Your task to perform on an android device: toggle notification dots Image 0: 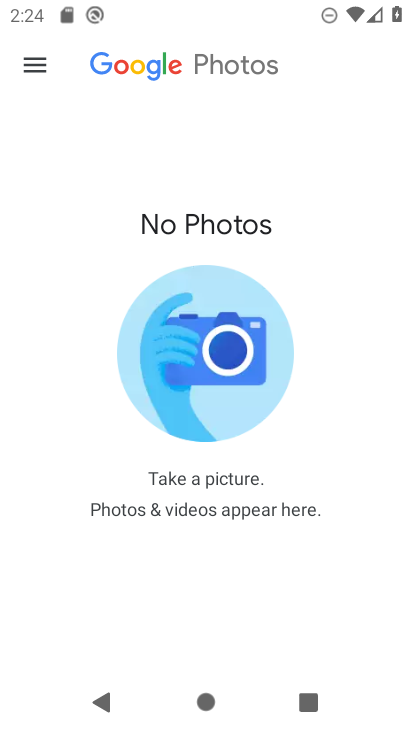
Step 0: press back button
Your task to perform on an android device: toggle notification dots Image 1: 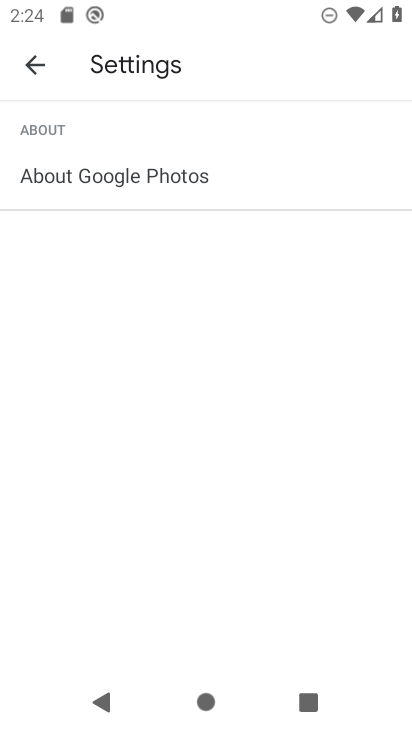
Step 1: press home button
Your task to perform on an android device: toggle notification dots Image 2: 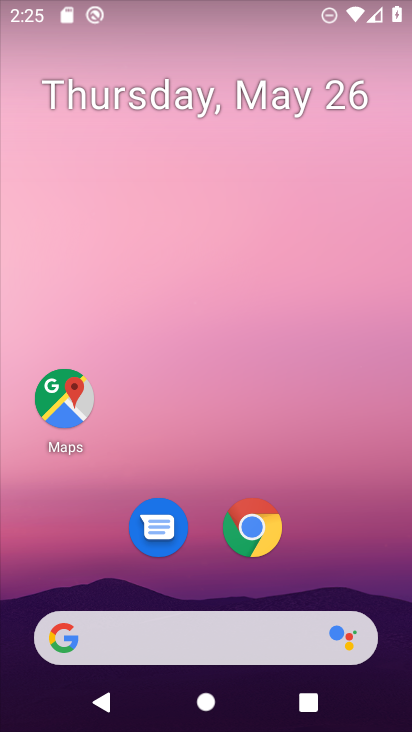
Step 2: drag from (184, 576) to (235, 42)
Your task to perform on an android device: toggle notification dots Image 3: 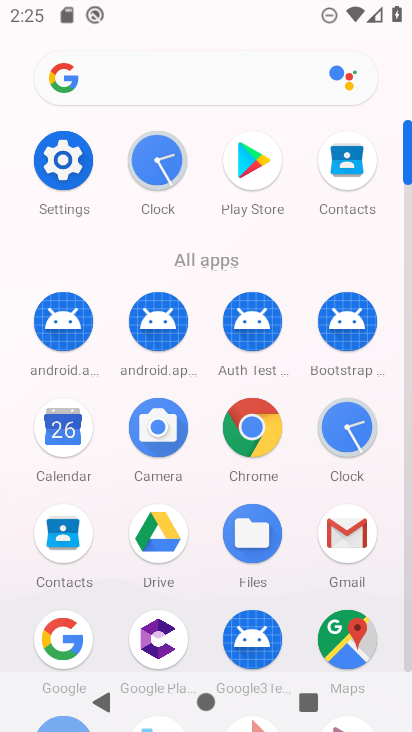
Step 3: click (71, 164)
Your task to perform on an android device: toggle notification dots Image 4: 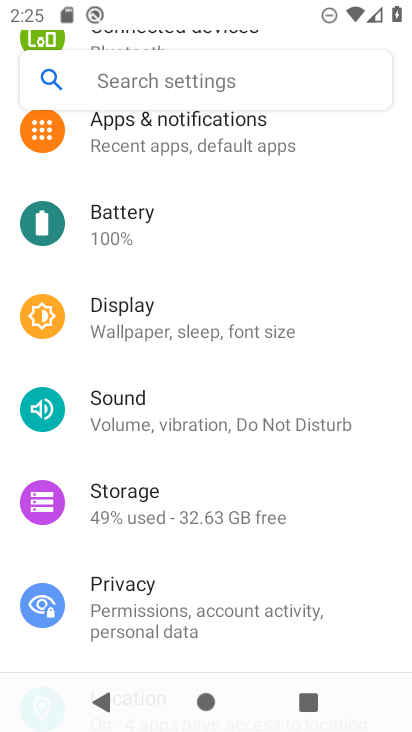
Step 4: click (157, 138)
Your task to perform on an android device: toggle notification dots Image 5: 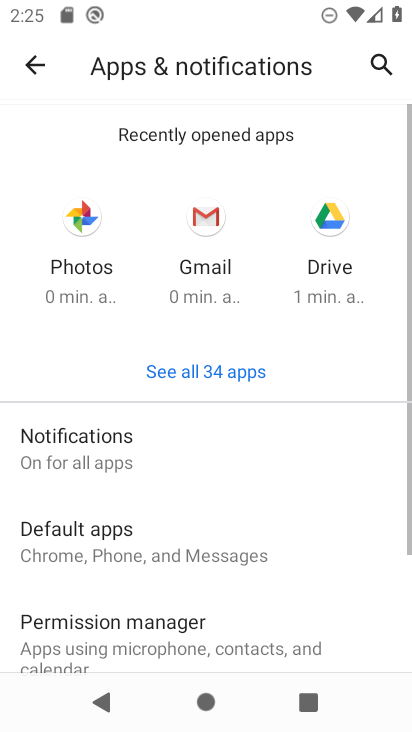
Step 5: click (183, 458)
Your task to perform on an android device: toggle notification dots Image 6: 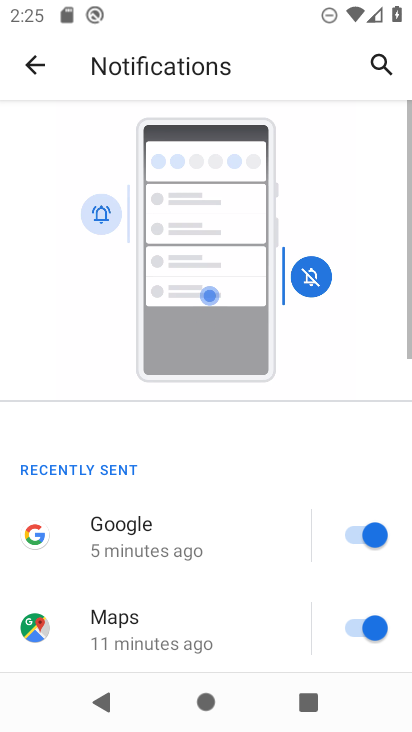
Step 6: drag from (180, 644) to (246, 81)
Your task to perform on an android device: toggle notification dots Image 7: 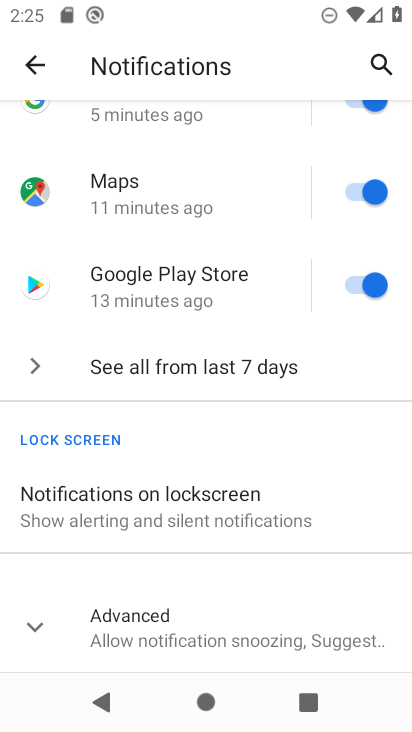
Step 7: click (222, 617)
Your task to perform on an android device: toggle notification dots Image 8: 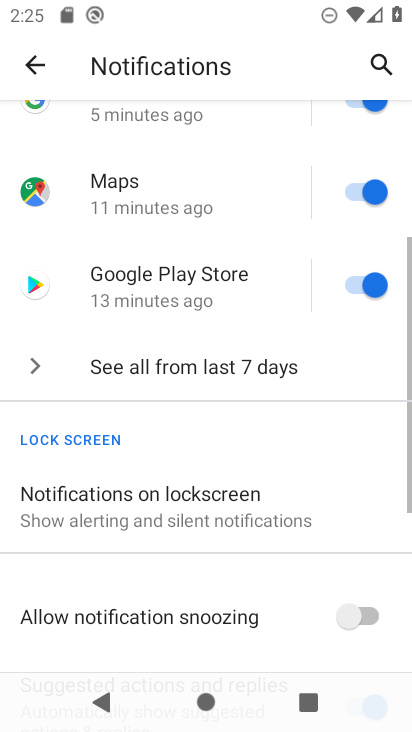
Step 8: drag from (213, 585) to (210, 130)
Your task to perform on an android device: toggle notification dots Image 9: 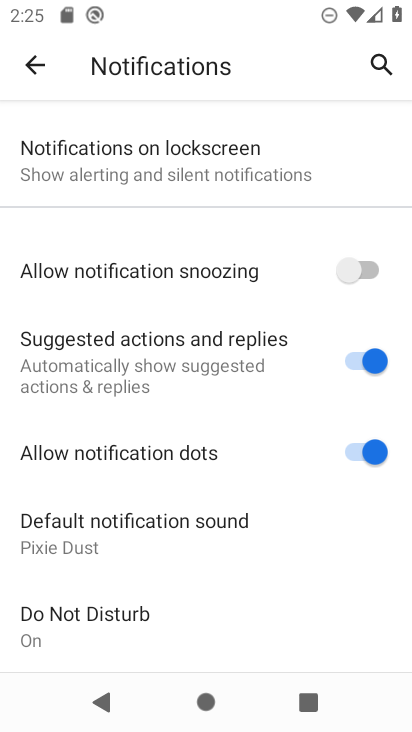
Step 9: click (366, 451)
Your task to perform on an android device: toggle notification dots Image 10: 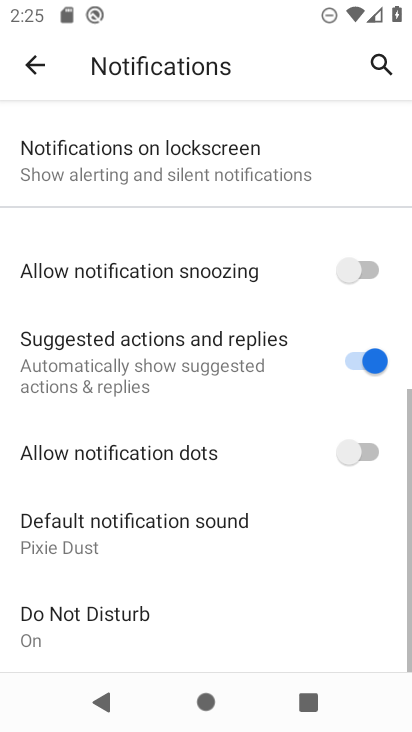
Step 10: task complete